Your task to perform on an android device: Find coffee shops on Maps Image 0: 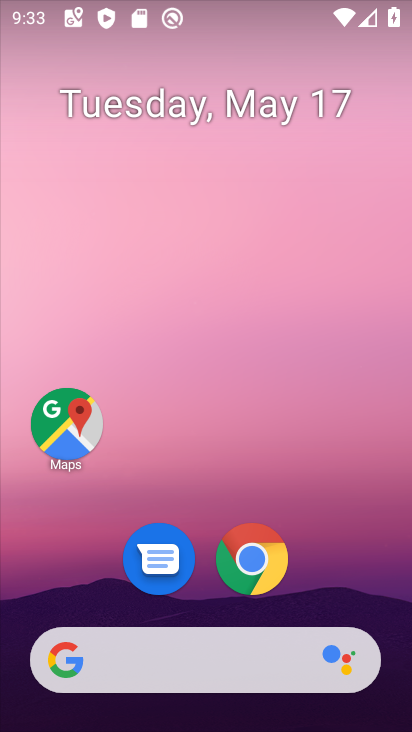
Step 0: click (51, 417)
Your task to perform on an android device: Find coffee shops on Maps Image 1: 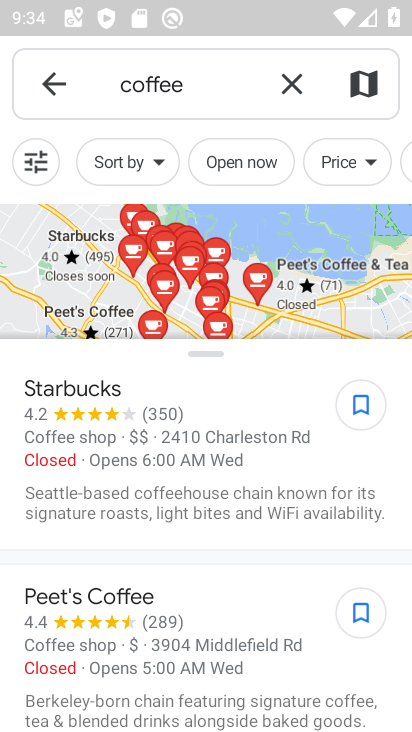
Step 1: task complete